Your task to perform on an android device: Open Android settings Image 0: 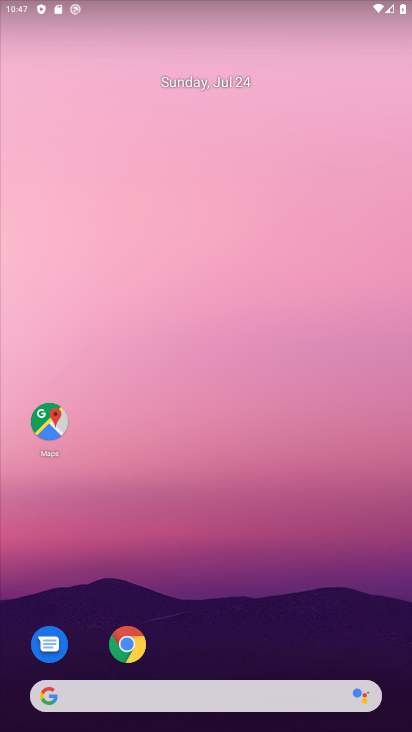
Step 0: drag from (298, 662) to (310, 0)
Your task to perform on an android device: Open Android settings Image 1: 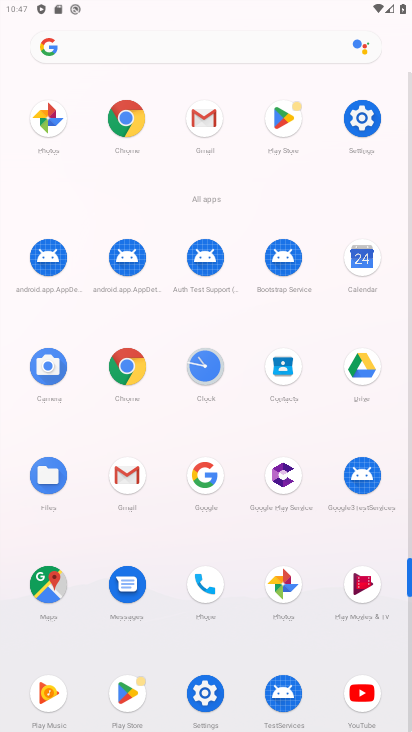
Step 1: click (354, 116)
Your task to perform on an android device: Open Android settings Image 2: 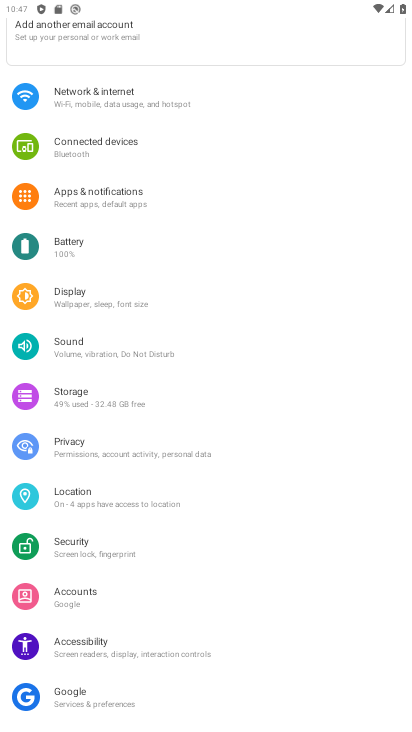
Step 2: task complete